Your task to perform on an android device: Go to privacy settings Image 0: 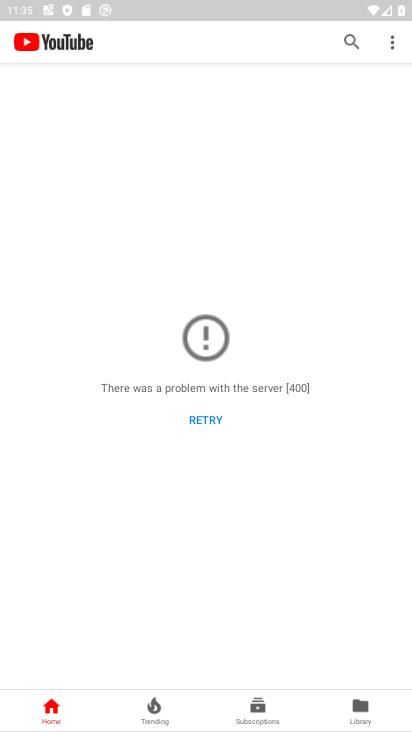
Step 0: press back button
Your task to perform on an android device: Go to privacy settings Image 1: 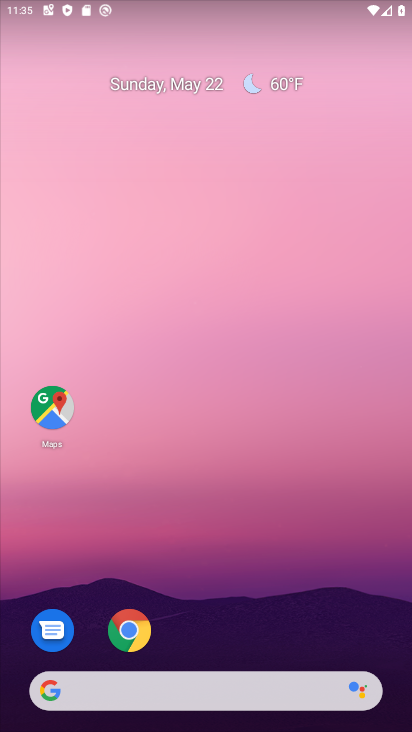
Step 1: drag from (275, 599) to (230, 112)
Your task to perform on an android device: Go to privacy settings Image 2: 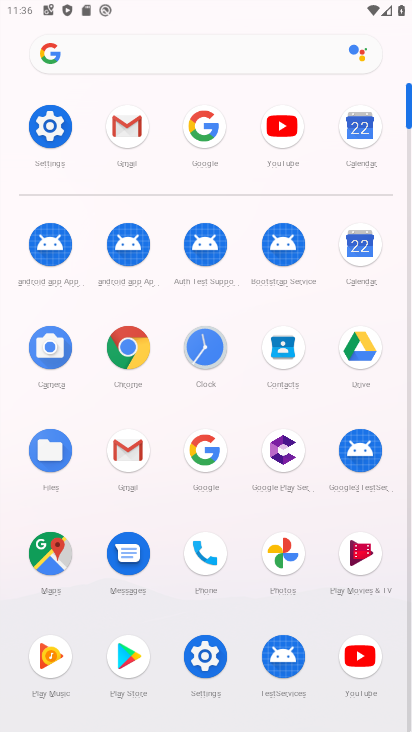
Step 2: click (52, 127)
Your task to perform on an android device: Go to privacy settings Image 3: 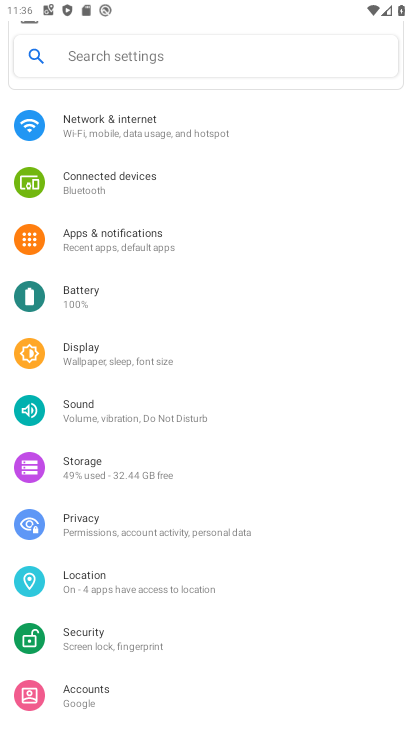
Step 3: drag from (134, 551) to (188, 460)
Your task to perform on an android device: Go to privacy settings Image 4: 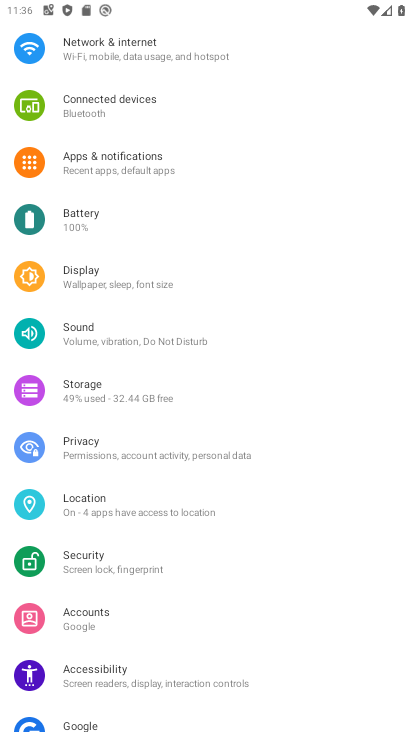
Step 4: click (156, 460)
Your task to perform on an android device: Go to privacy settings Image 5: 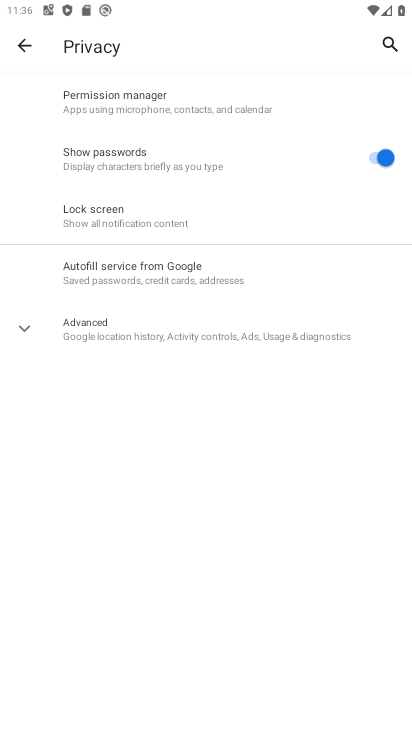
Step 5: task complete